Your task to perform on an android device: clear history in the chrome app Image 0: 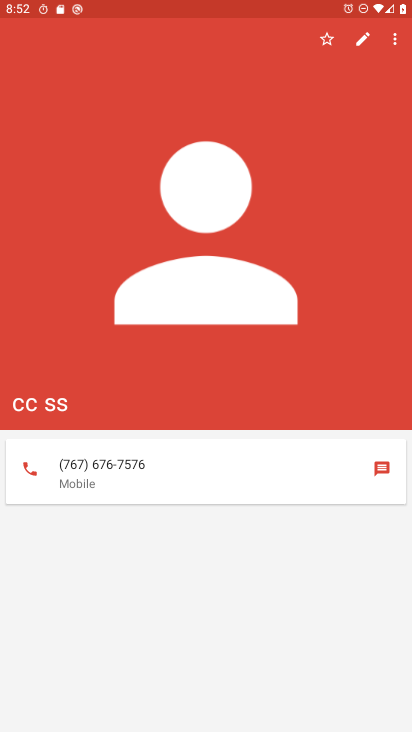
Step 0: press home button
Your task to perform on an android device: clear history in the chrome app Image 1: 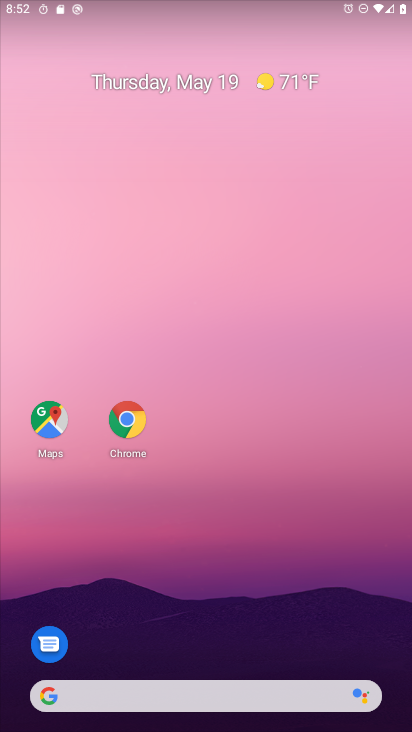
Step 1: click (139, 409)
Your task to perform on an android device: clear history in the chrome app Image 2: 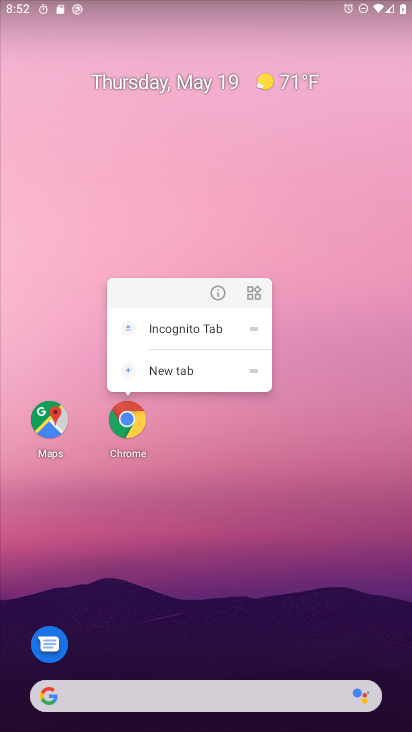
Step 2: click (137, 424)
Your task to perform on an android device: clear history in the chrome app Image 3: 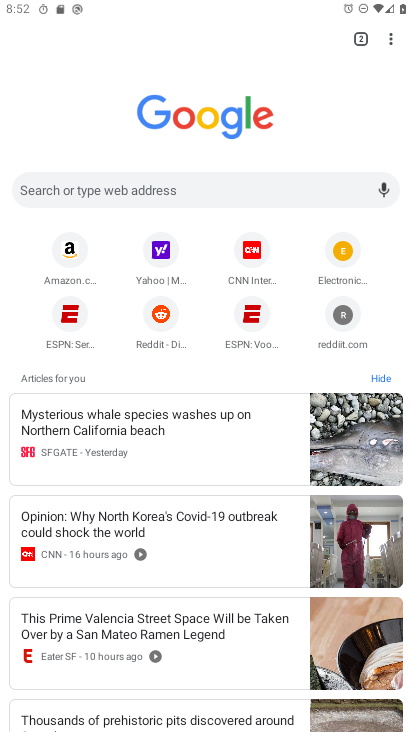
Step 3: click (399, 42)
Your task to perform on an android device: clear history in the chrome app Image 4: 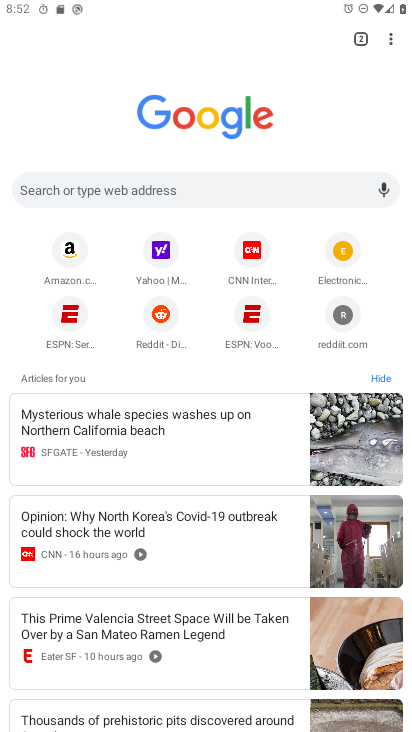
Step 4: click (385, 43)
Your task to perform on an android device: clear history in the chrome app Image 5: 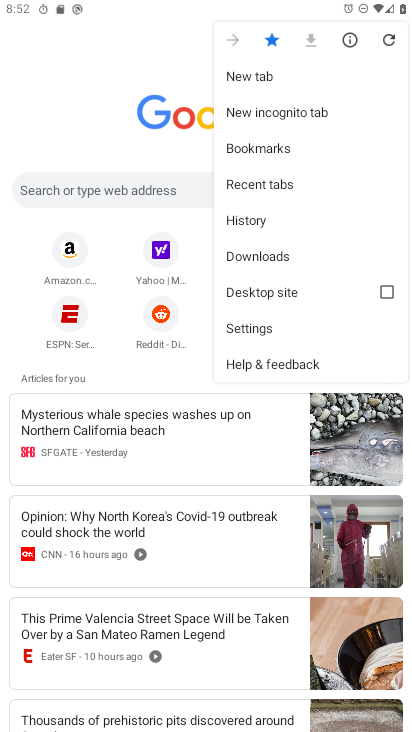
Step 5: click (247, 220)
Your task to perform on an android device: clear history in the chrome app Image 6: 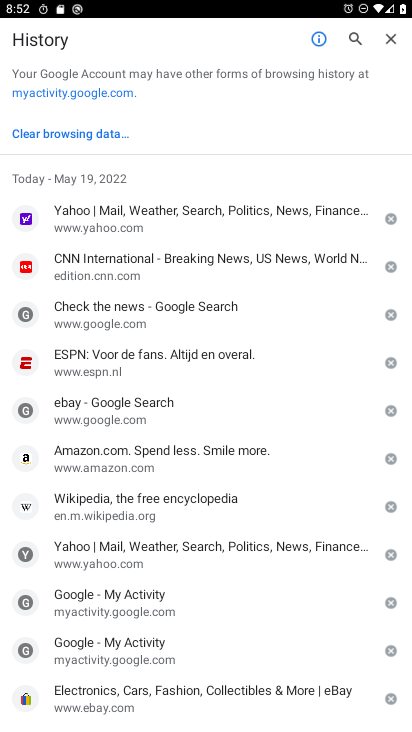
Step 6: click (79, 129)
Your task to perform on an android device: clear history in the chrome app Image 7: 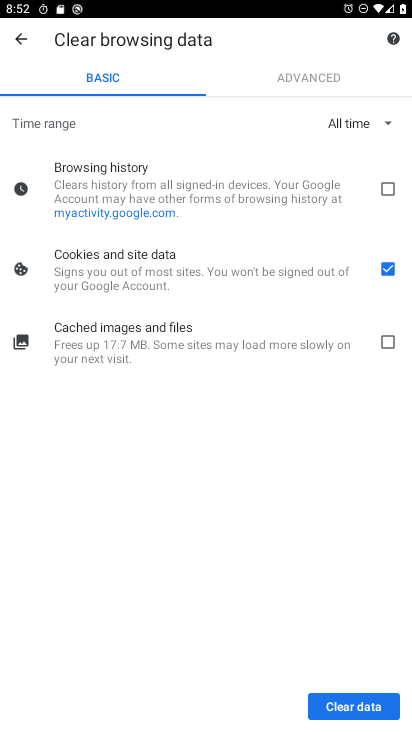
Step 7: click (381, 346)
Your task to perform on an android device: clear history in the chrome app Image 8: 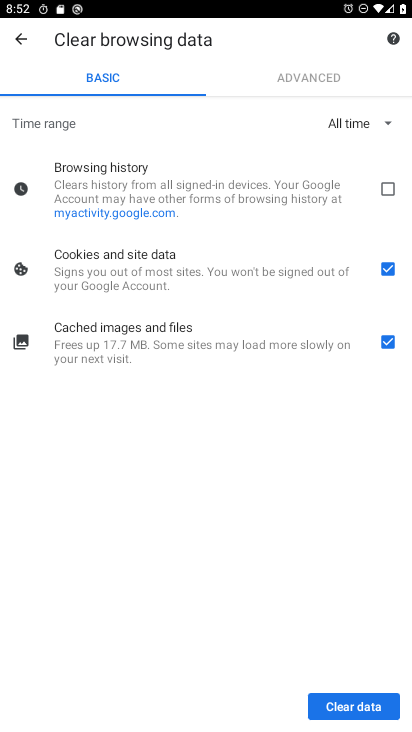
Step 8: click (386, 187)
Your task to perform on an android device: clear history in the chrome app Image 9: 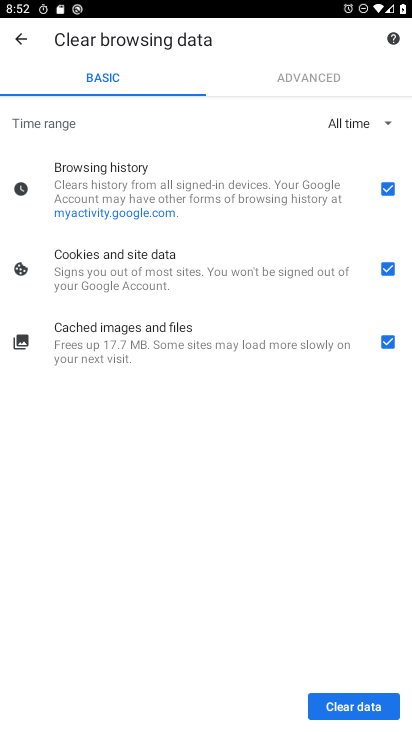
Step 9: click (323, 710)
Your task to perform on an android device: clear history in the chrome app Image 10: 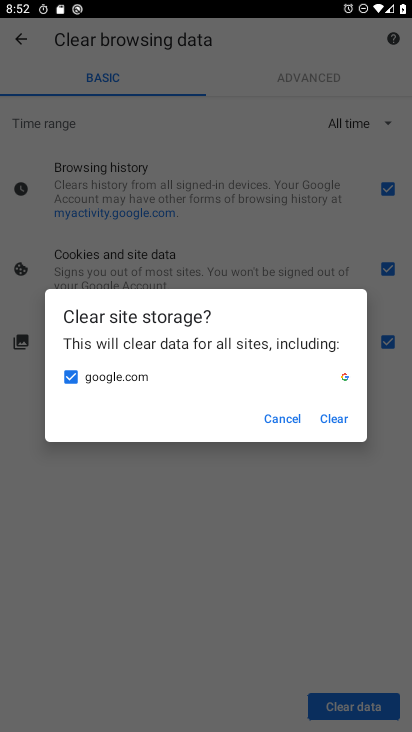
Step 10: click (346, 409)
Your task to perform on an android device: clear history in the chrome app Image 11: 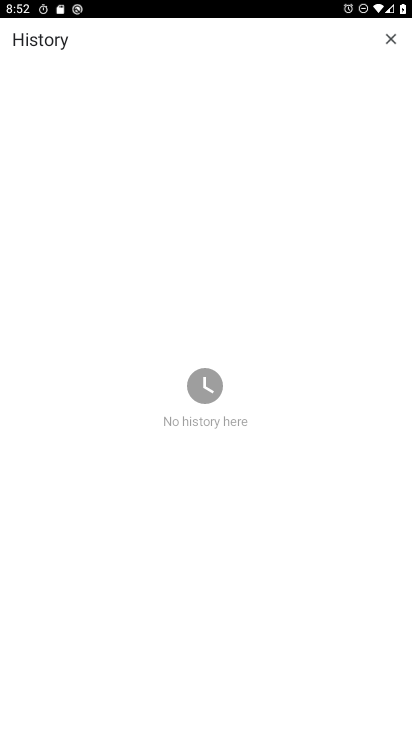
Step 11: task complete